Your task to perform on an android device: star an email in the gmail app Image 0: 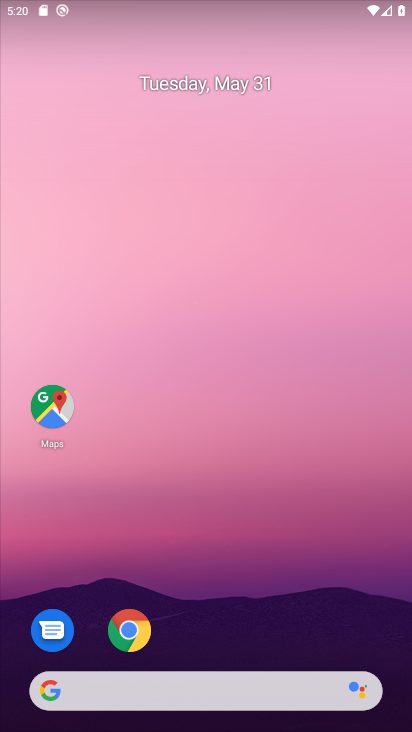
Step 0: drag from (279, 583) to (284, 27)
Your task to perform on an android device: star an email in the gmail app Image 1: 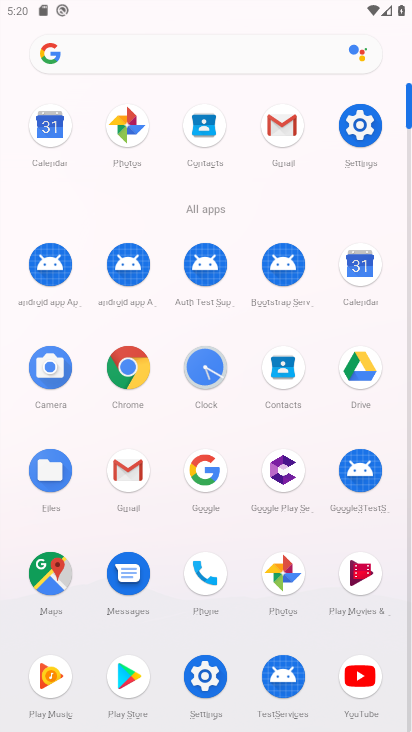
Step 1: click (286, 134)
Your task to perform on an android device: star an email in the gmail app Image 2: 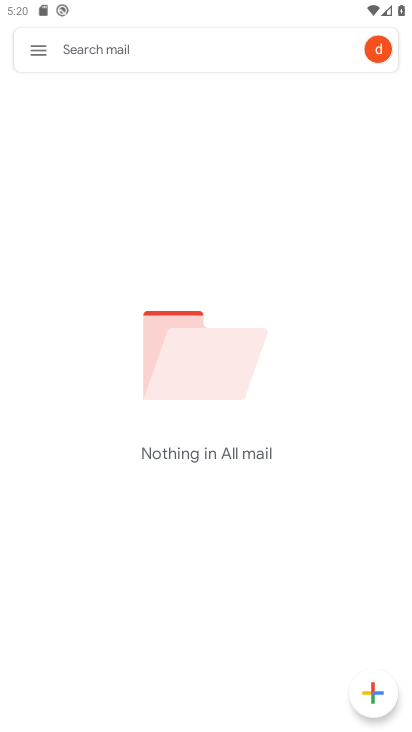
Step 2: click (39, 50)
Your task to perform on an android device: star an email in the gmail app Image 3: 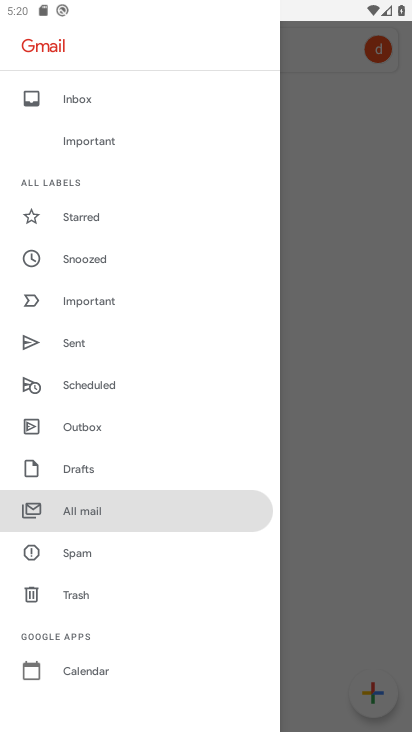
Step 3: click (45, 209)
Your task to perform on an android device: star an email in the gmail app Image 4: 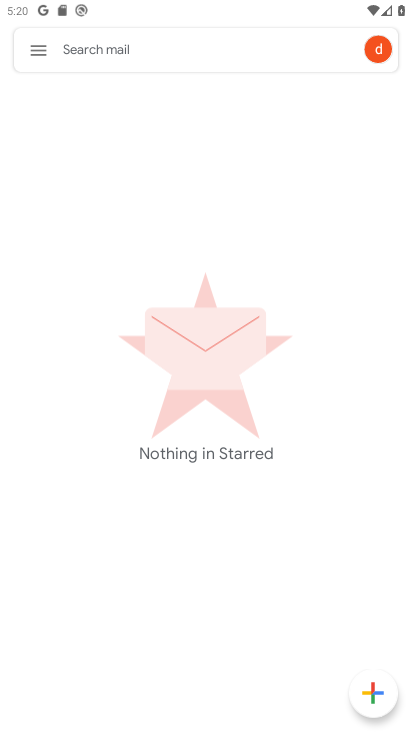
Step 4: task complete